Your task to perform on an android device: Go to Wikipedia Image 0: 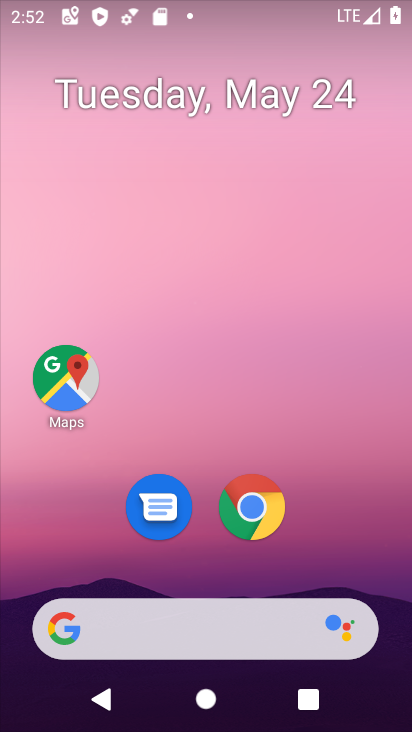
Step 0: click (263, 502)
Your task to perform on an android device: Go to Wikipedia Image 1: 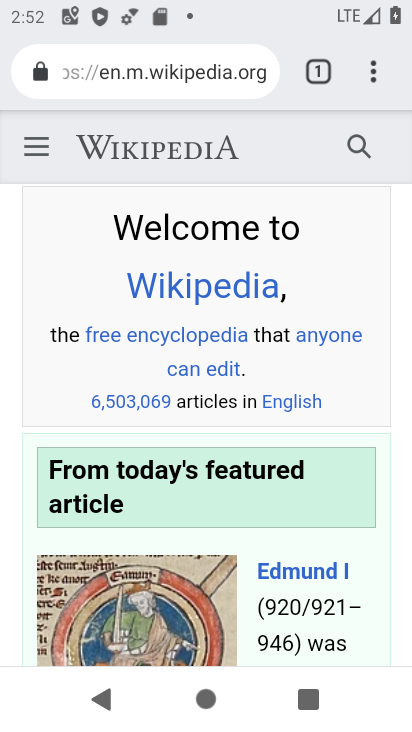
Step 1: task complete